Your task to perform on an android device: Find coffee shops on Maps Image 0: 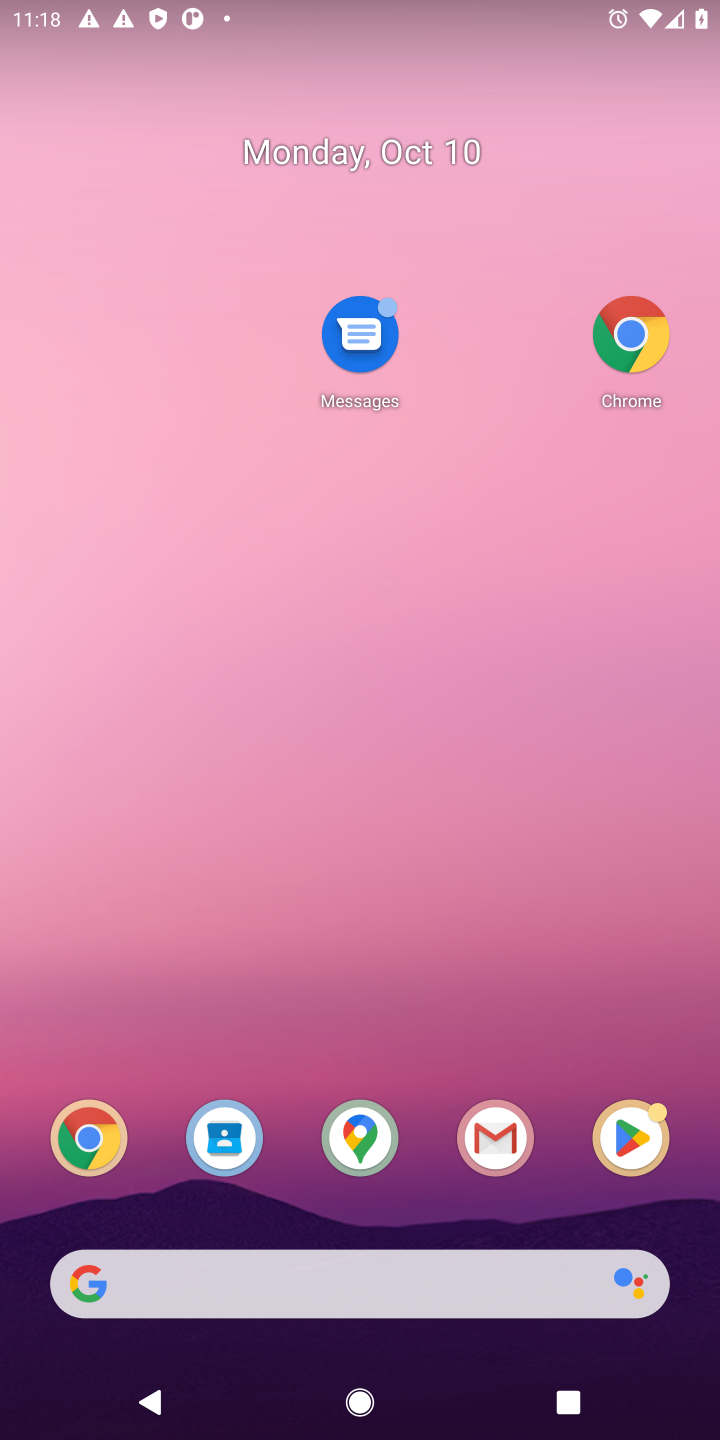
Step 0: click (640, 348)
Your task to perform on an android device: Find coffee shops on Maps Image 1: 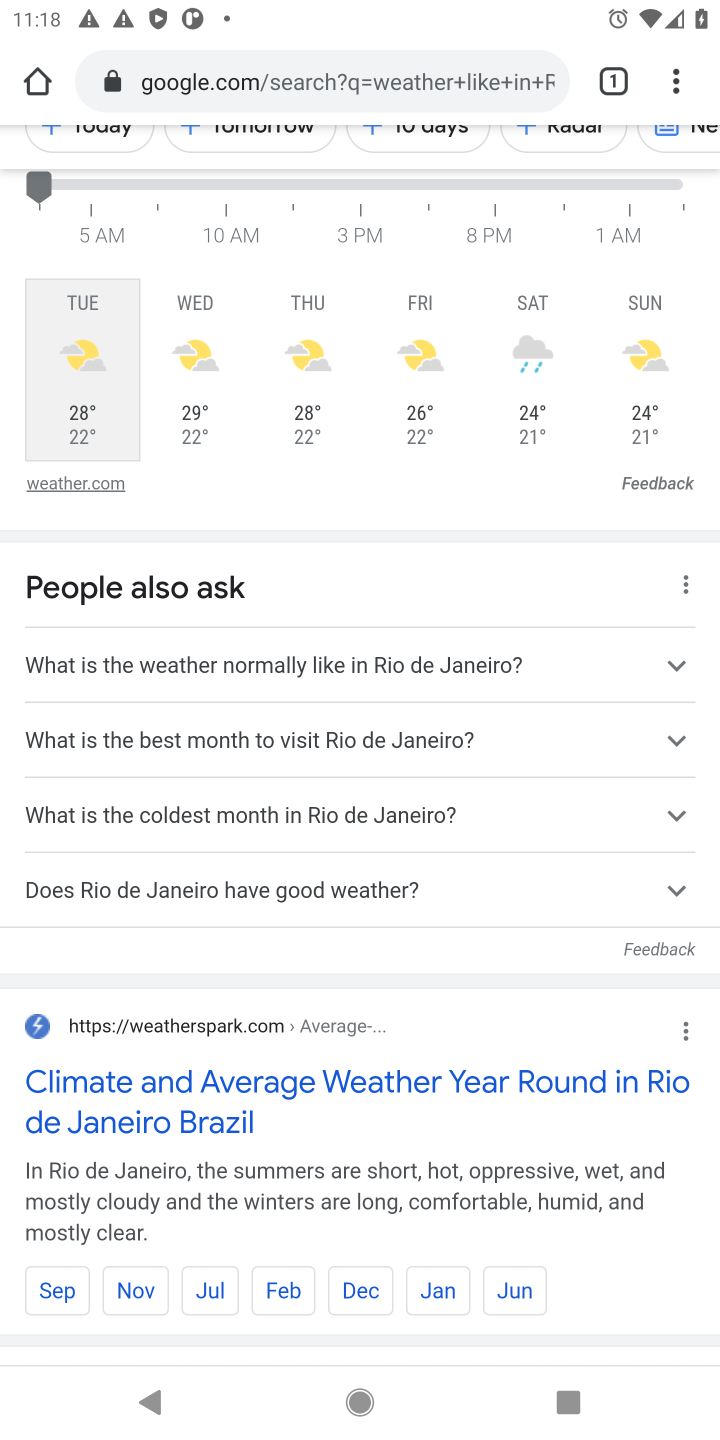
Step 1: press home button
Your task to perform on an android device: Find coffee shops on Maps Image 2: 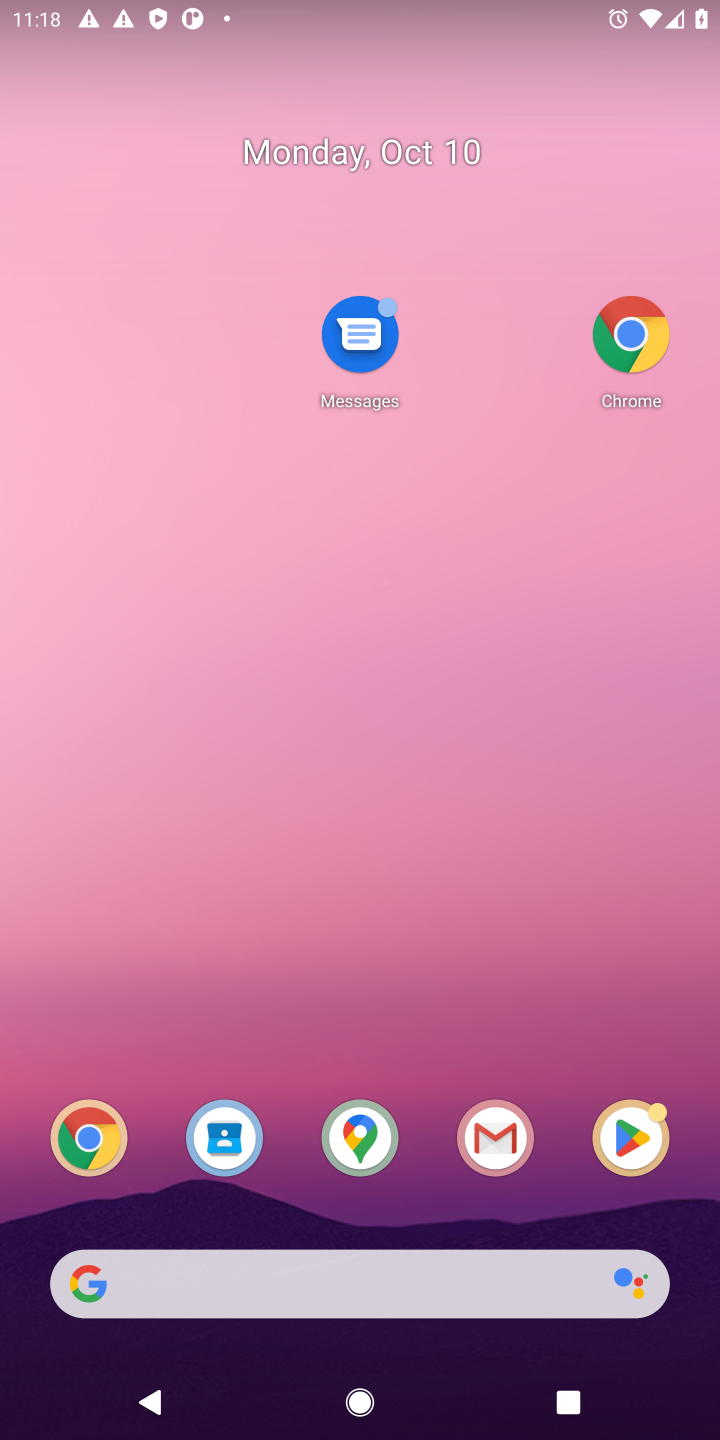
Step 2: click (350, 1136)
Your task to perform on an android device: Find coffee shops on Maps Image 3: 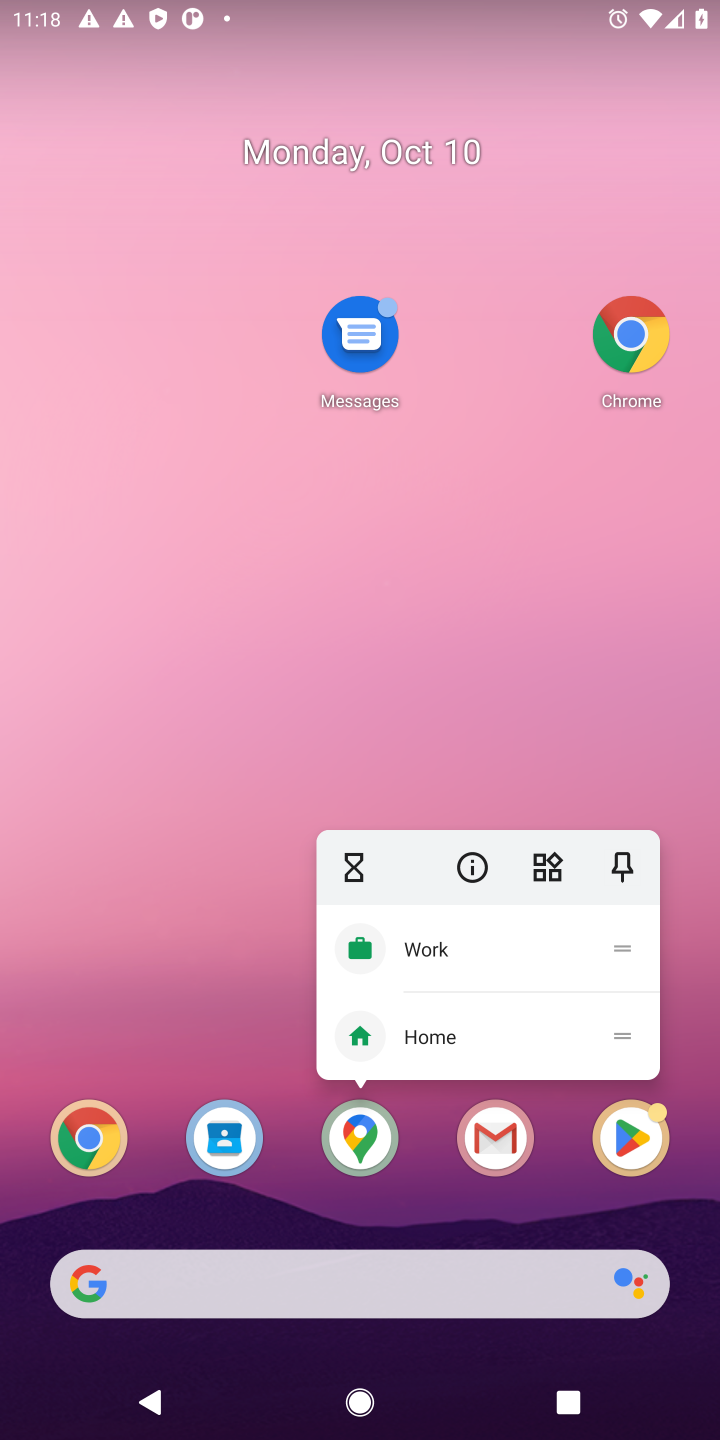
Step 3: click (353, 1136)
Your task to perform on an android device: Find coffee shops on Maps Image 4: 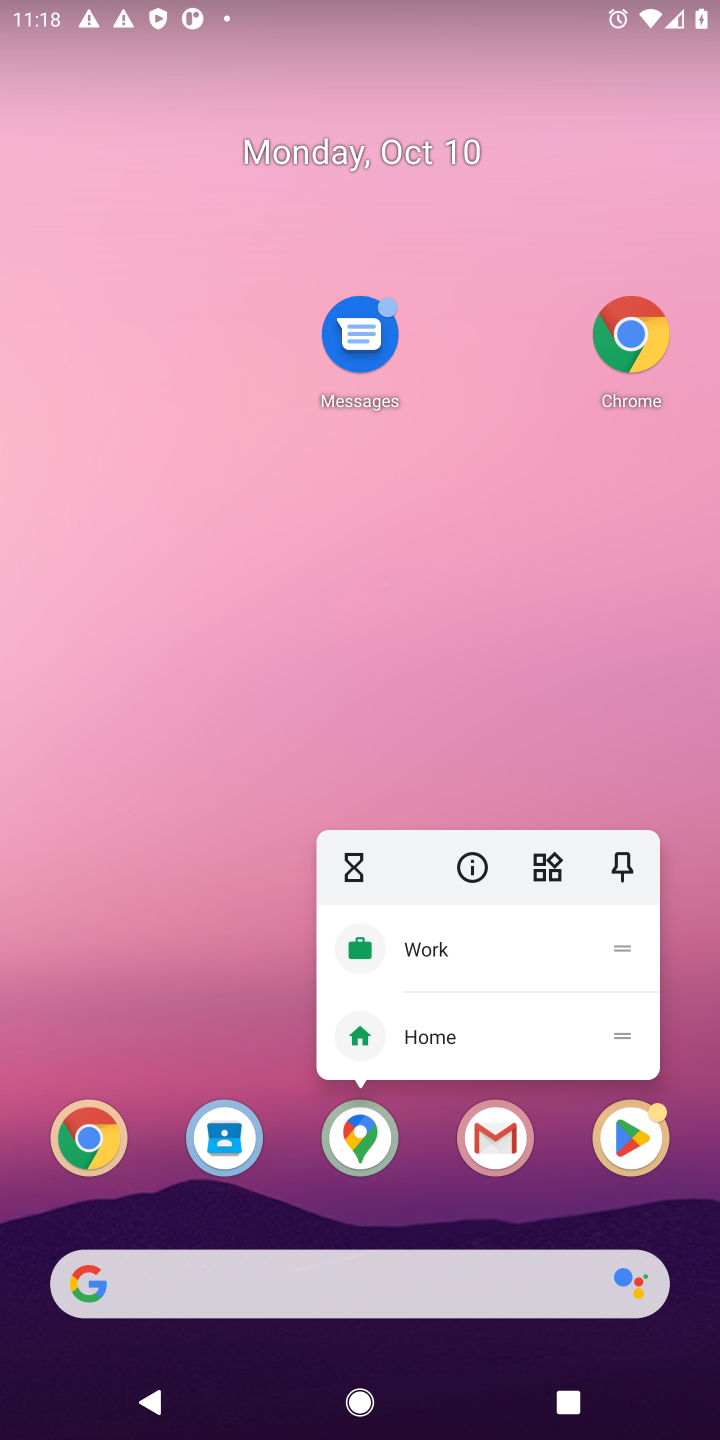
Step 4: click (366, 1156)
Your task to perform on an android device: Find coffee shops on Maps Image 5: 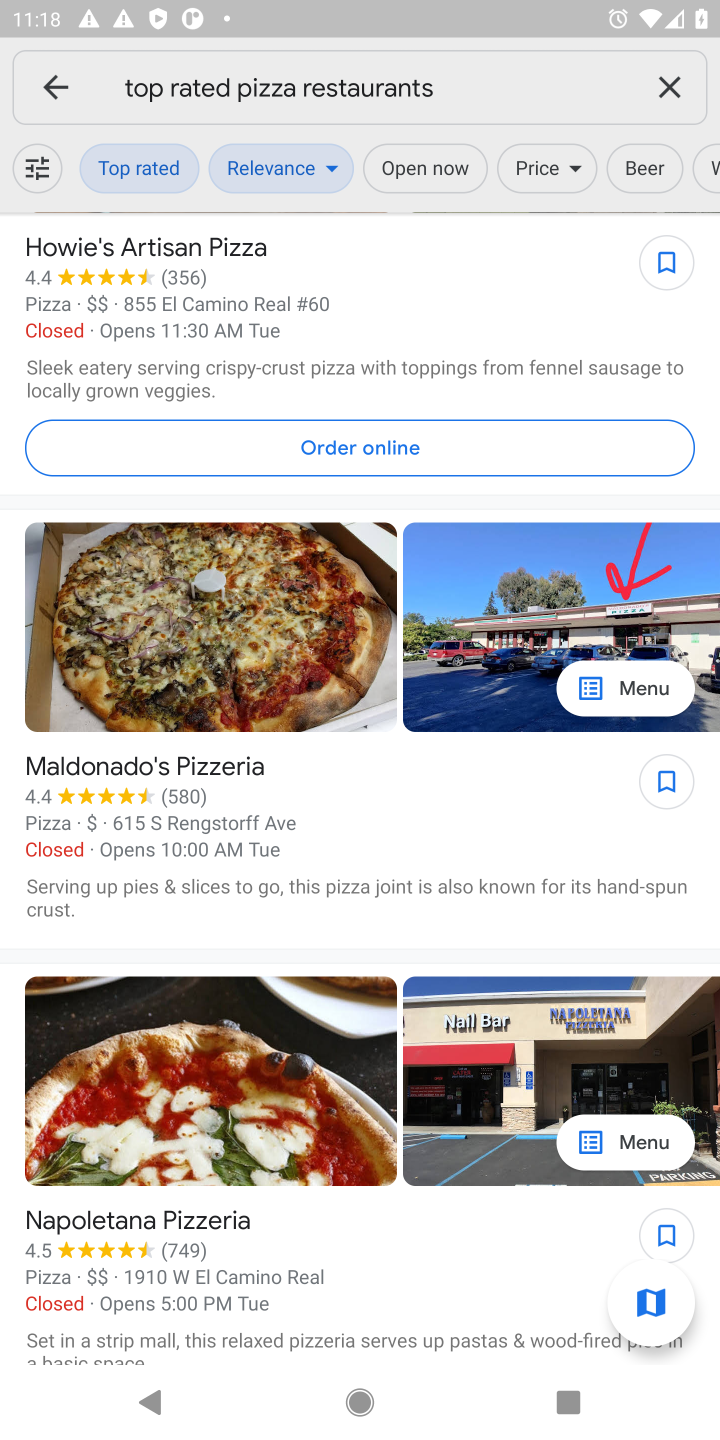
Step 5: click (664, 69)
Your task to perform on an android device: Find coffee shops on Maps Image 6: 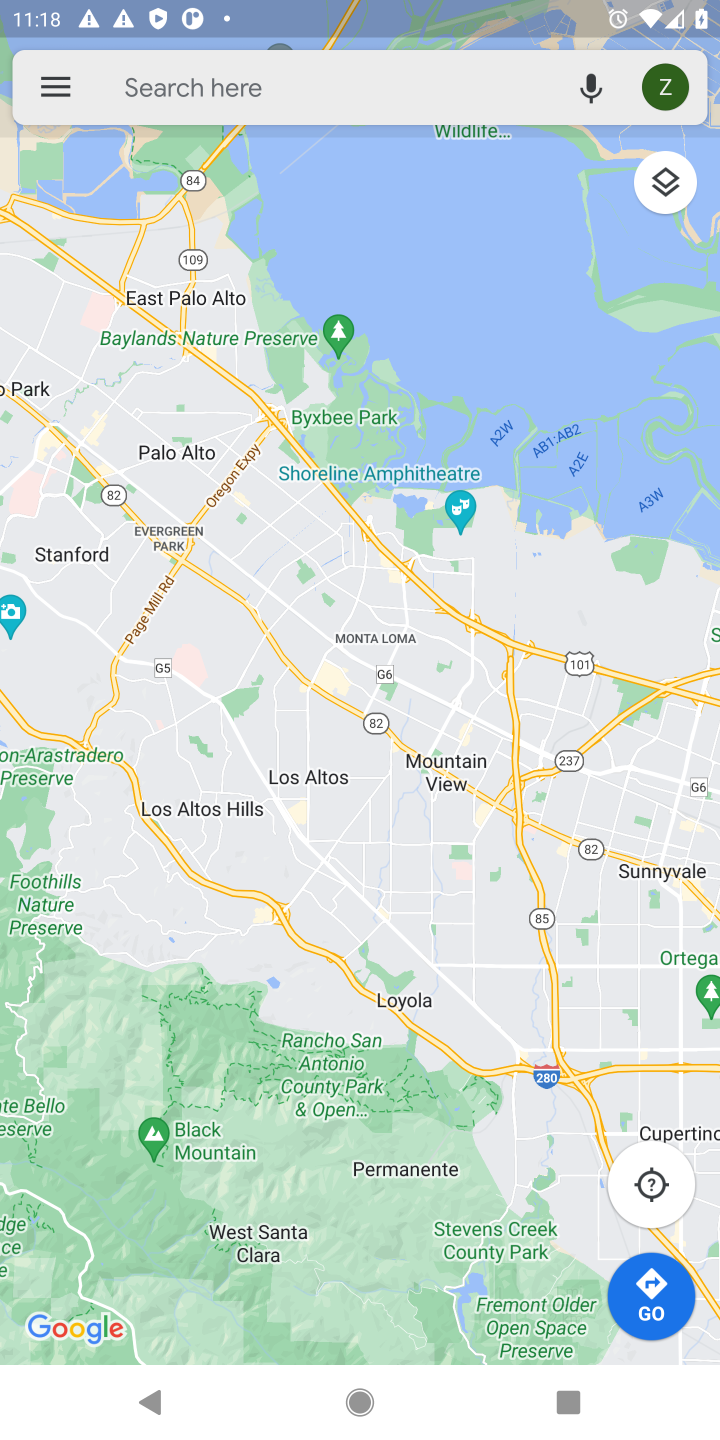
Step 6: click (481, 99)
Your task to perform on an android device: Find coffee shops on Maps Image 7: 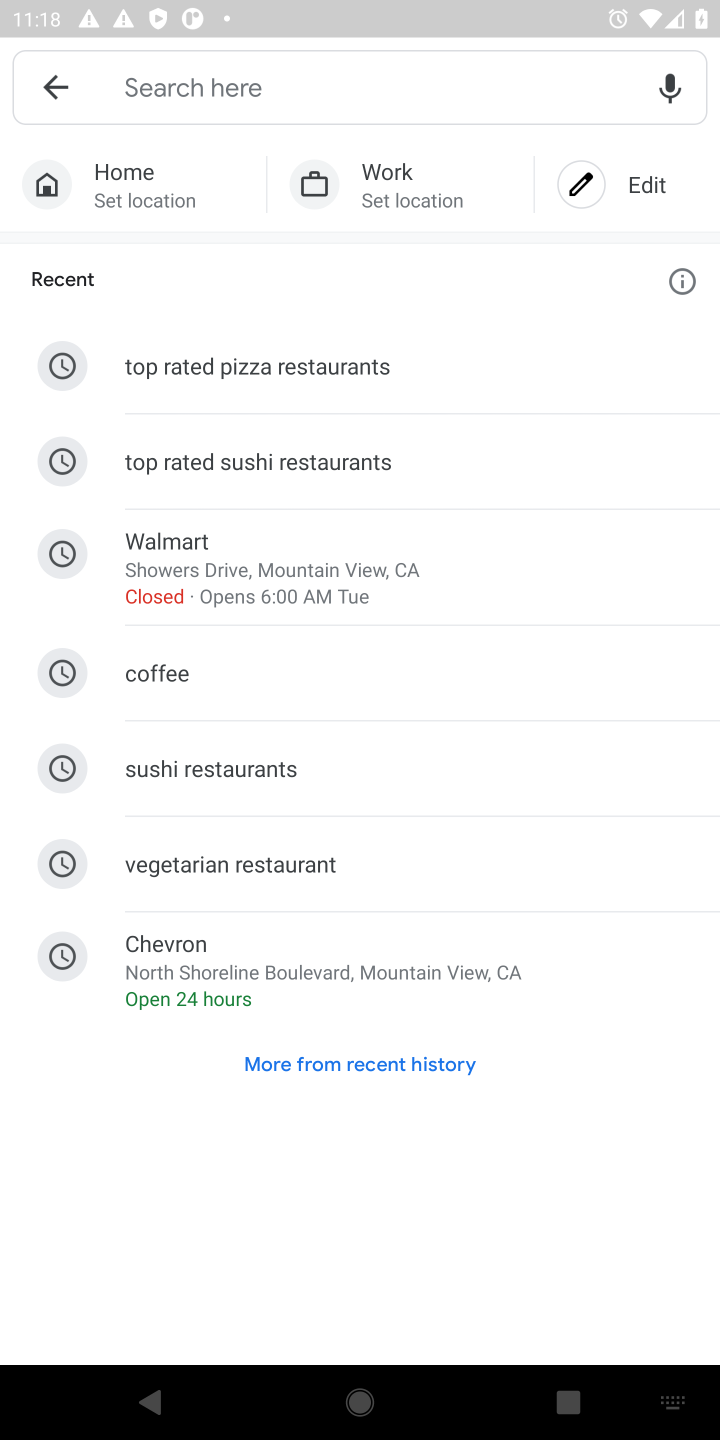
Step 7: type "coffee shops"
Your task to perform on an android device: Find coffee shops on Maps Image 8: 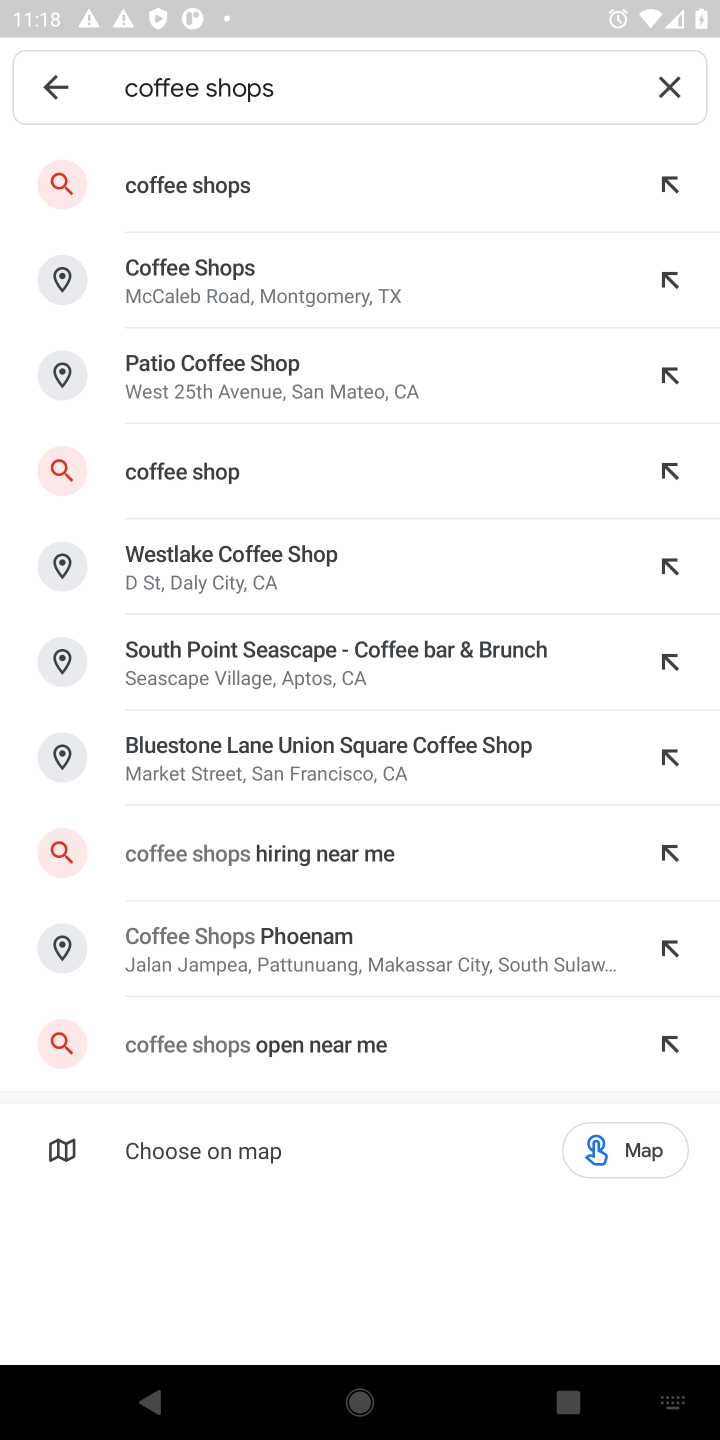
Step 8: press enter
Your task to perform on an android device: Find coffee shops on Maps Image 9: 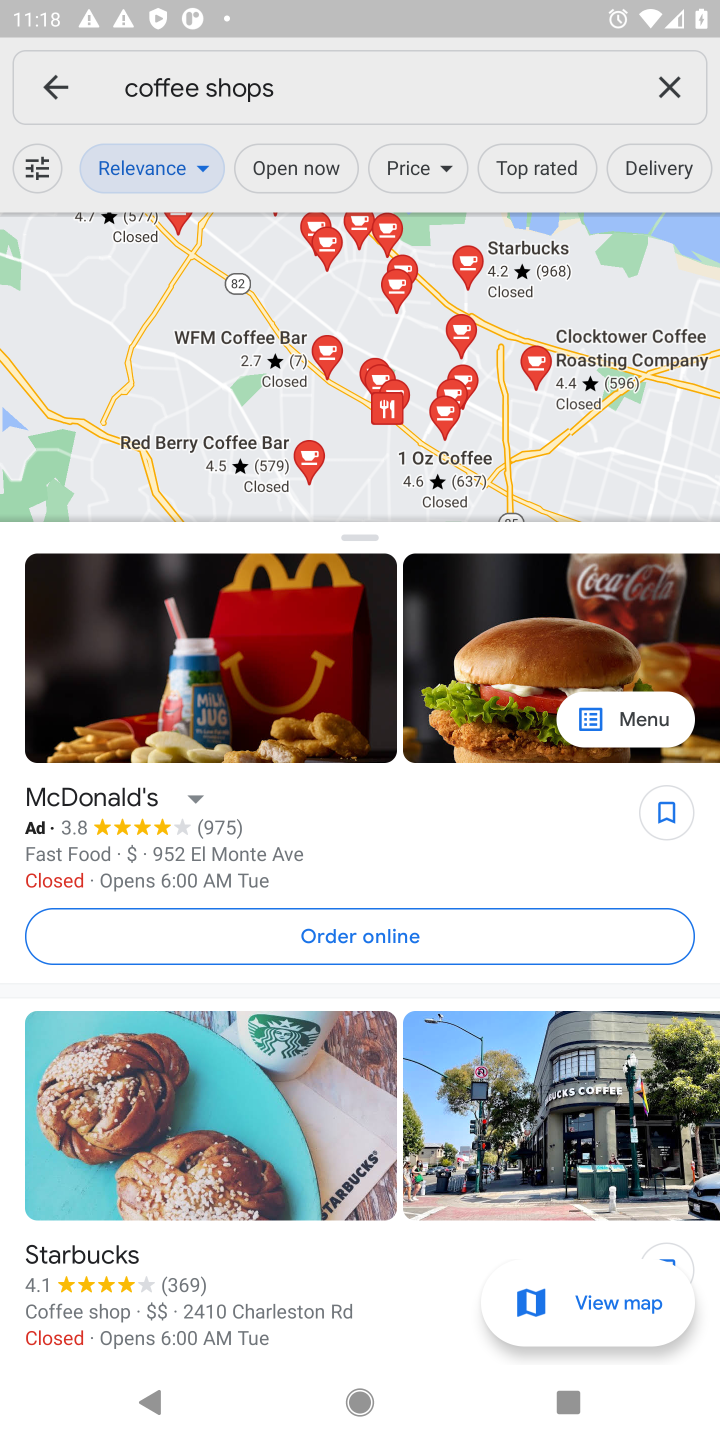
Step 9: task complete